Your task to perform on an android device: toggle pop-ups in chrome Image 0: 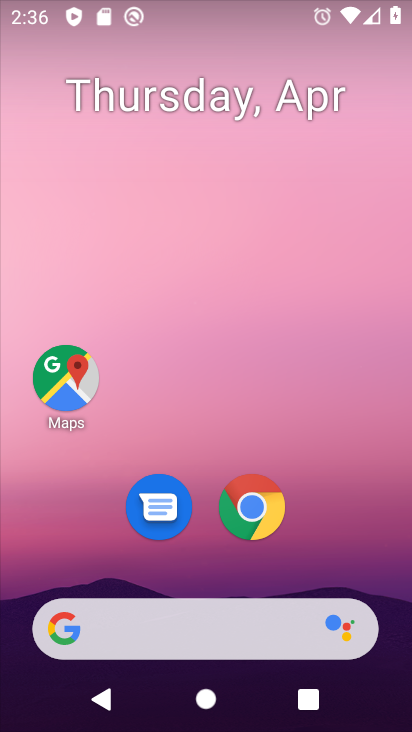
Step 0: drag from (364, 545) to (357, 228)
Your task to perform on an android device: toggle pop-ups in chrome Image 1: 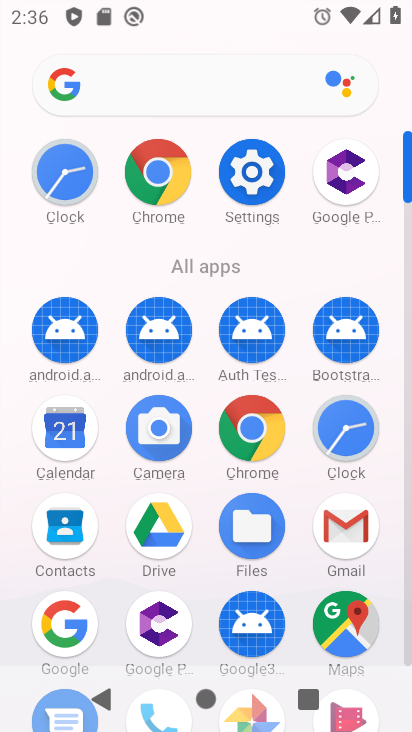
Step 1: click (263, 427)
Your task to perform on an android device: toggle pop-ups in chrome Image 2: 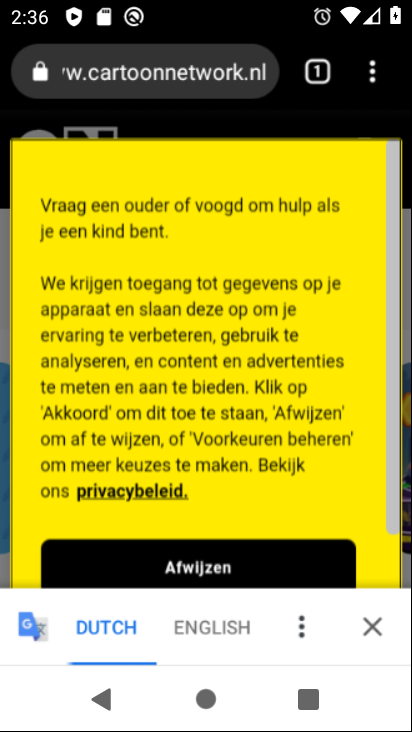
Step 2: drag from (374, 79) to (188, 516)
Your task to perform on an android device: toggle pop-ups in chrome Image 3: 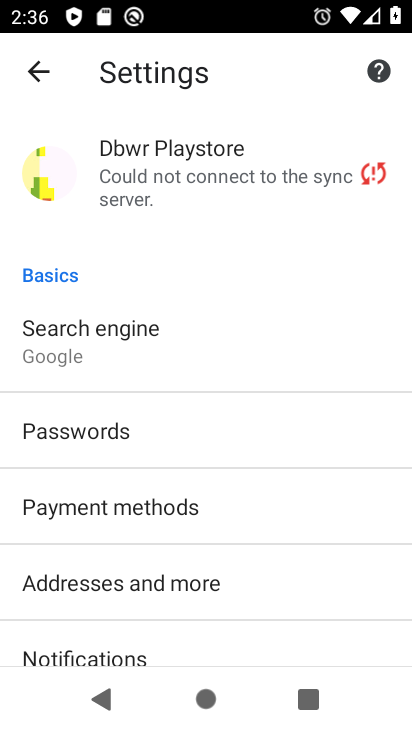
Step 3: drag from (286, 563) to (292, 330)
Your task to perform on an android device: toggle pop-ups in chrome Image 4: 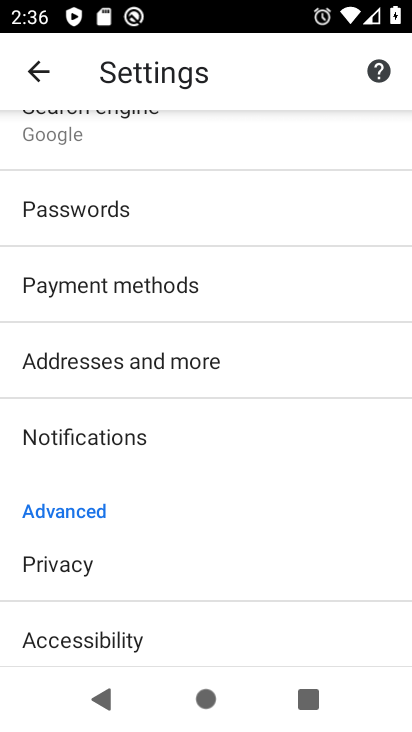
Step 4: drag from (294, 605) to (294, 305)
Your task to perform on an android device: toggle pop-ups in chrome Image 5: 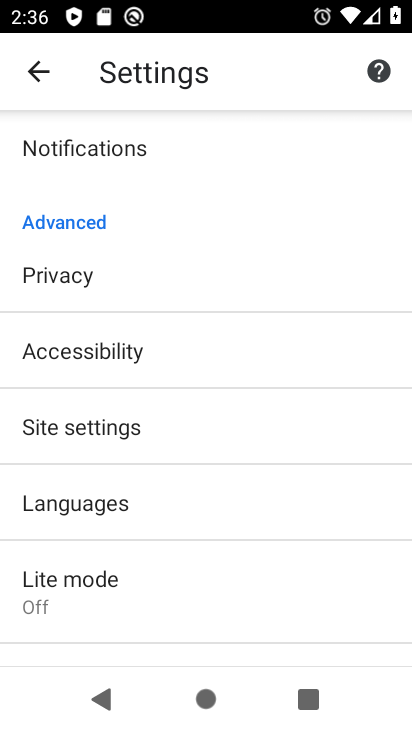
Step 5: drag from (255, 565) to (255, 340)
Your task to perform on an android device: toggle pop-ups in chrome Image 6: 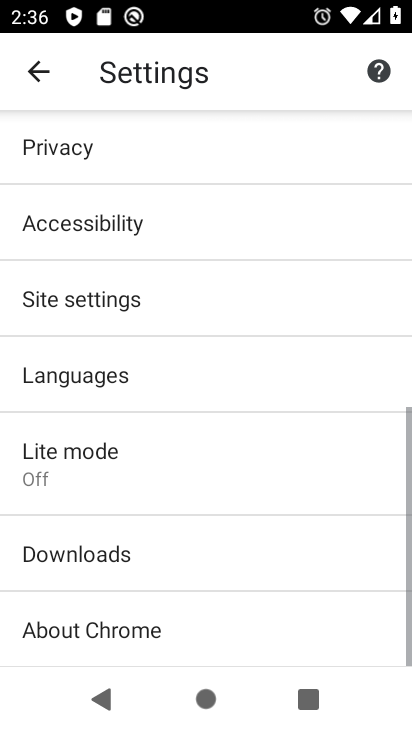
Step 6: drag from (217, 346) to (228, 249)
Your task to perform on an android device: toggle pop-ups in chrome Image 7: 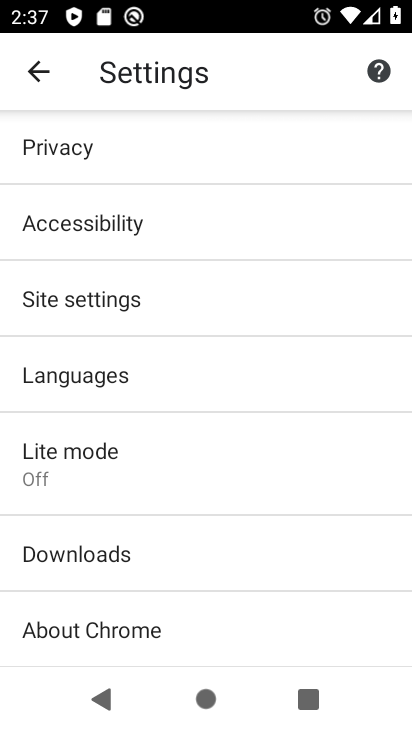
Step 7: click (118, 297)
Your task to perform on an android device: toggle pop-ups in chrome Image 8: 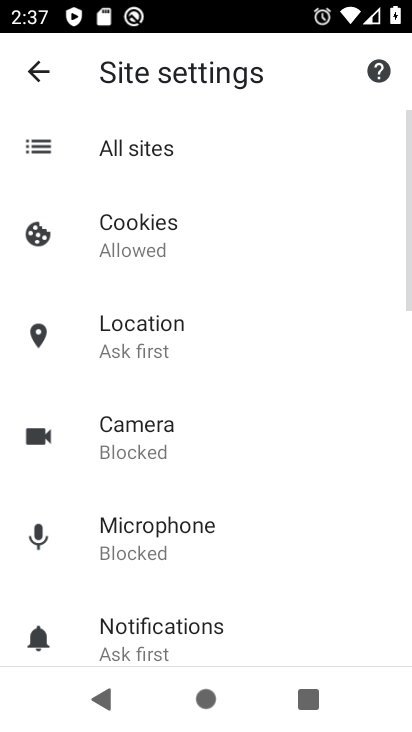
Step 8: drag from (267, 606) to (258, 290)
Your task to perform on an android device: toggle pop-ups in chrome Image 9: 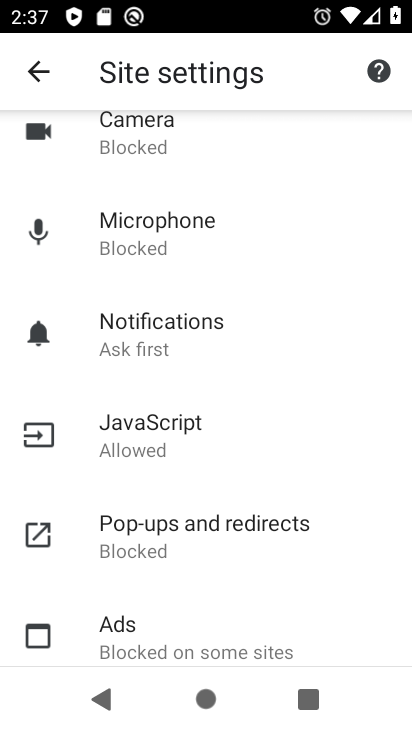
Step 9: drag from (230, 525) to (231, 237)
Your task to perform on an android device: toggle pop-ups in chrome Image 10: 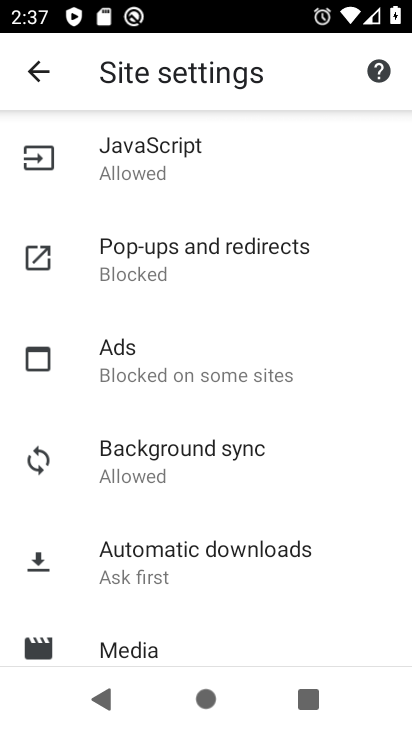
Step 10: drag from (207, 588) to (255, 310)
Your task to perform on an android device: toggle pop-ups in chrome Image 11: 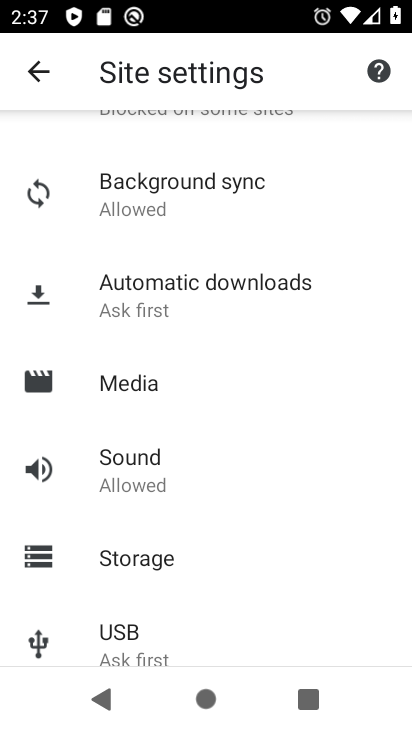
Step 11: drag from (254, 170) to (254, 483)
Your task to perform on an android device: toggle pop-ups in chrome Image 12: 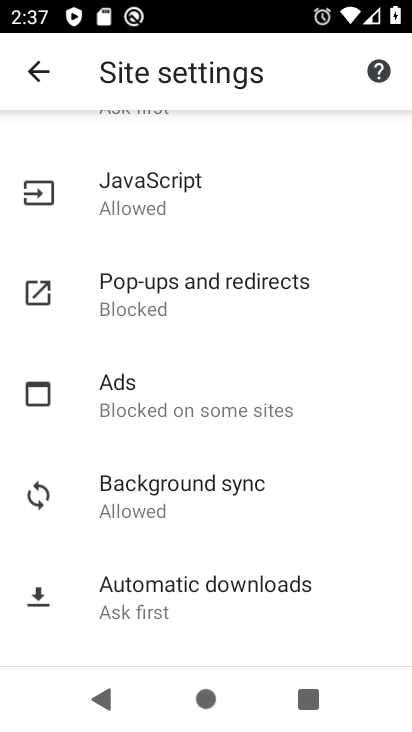
Step 12: click (252, 277)
Your task to perform on an android device: toggle pop-ups in chrome Image 13: 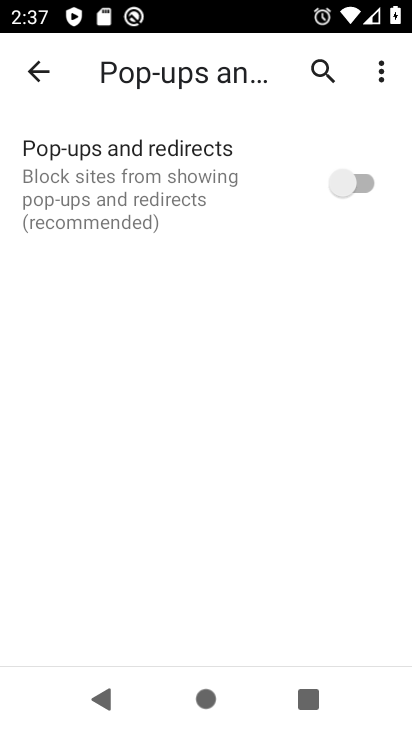
Step 13: click (368, 182)
Your task to perform on an android device: toggle pop-ups in chrome Image 14: 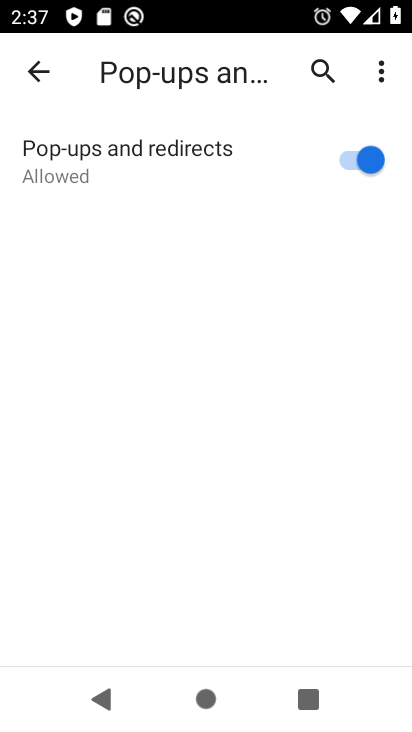
Step 14: task complete